Your task to perform on an android device: change the clock style Image 0: 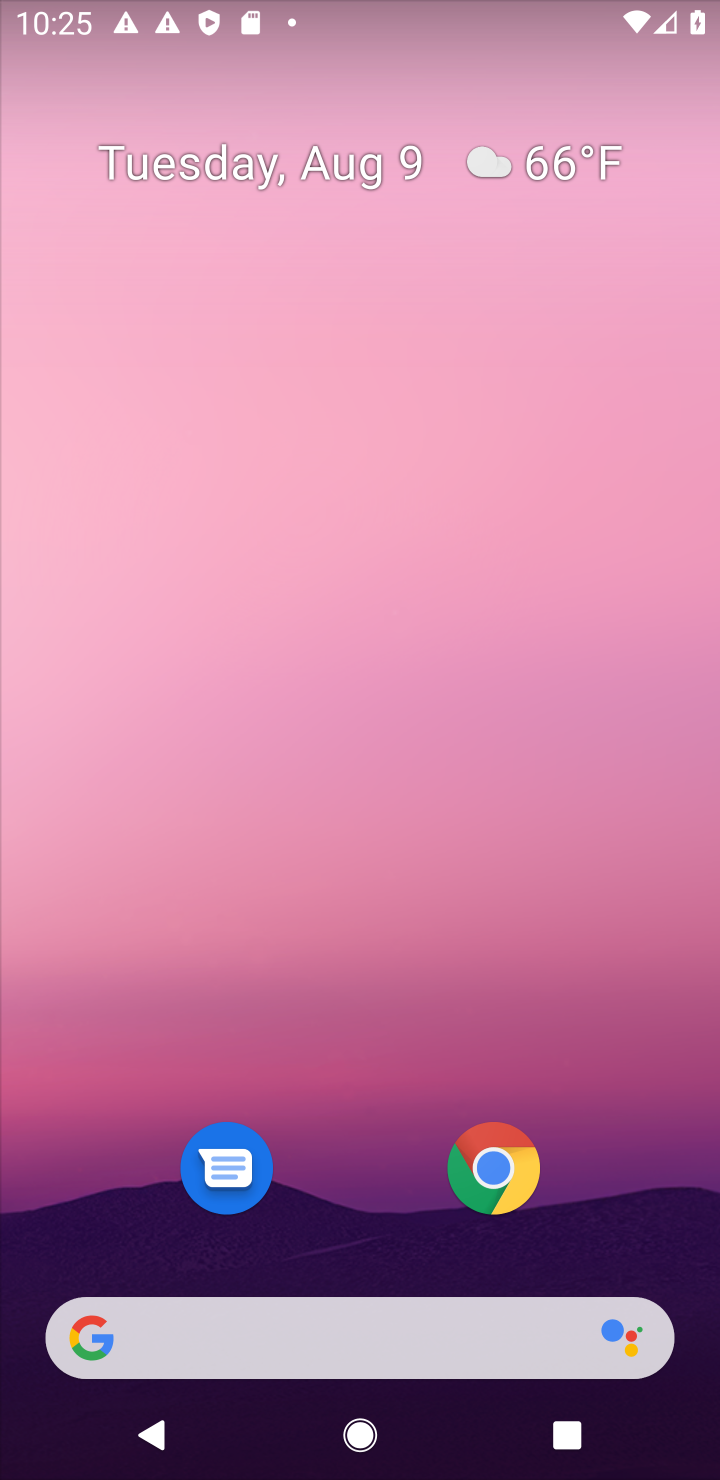
Step 0: drag from (388, 1083) to (394, 61)
Your task to perform on an android device: change the clock style Image 1: 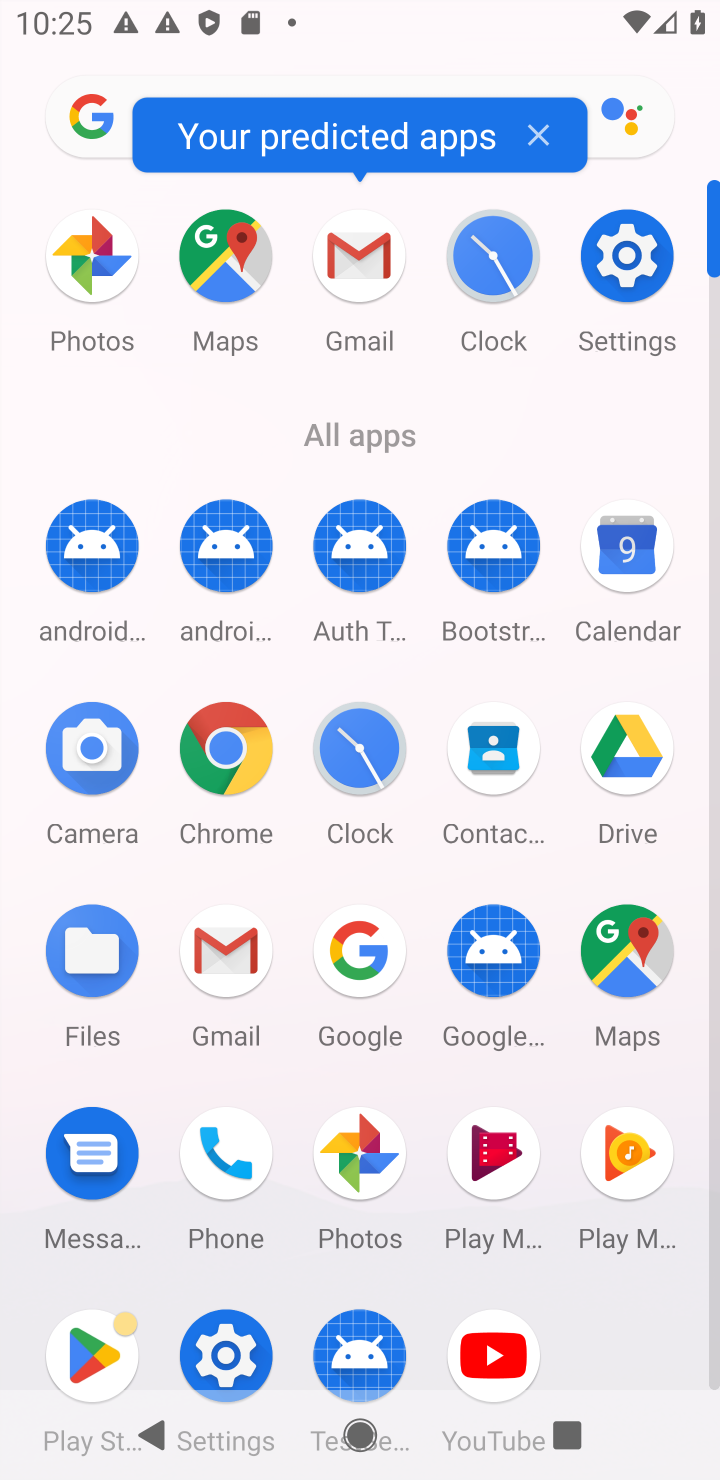
Step 1: click (377, 756)
Your task to perform on an android device: change the clock style Image 2: 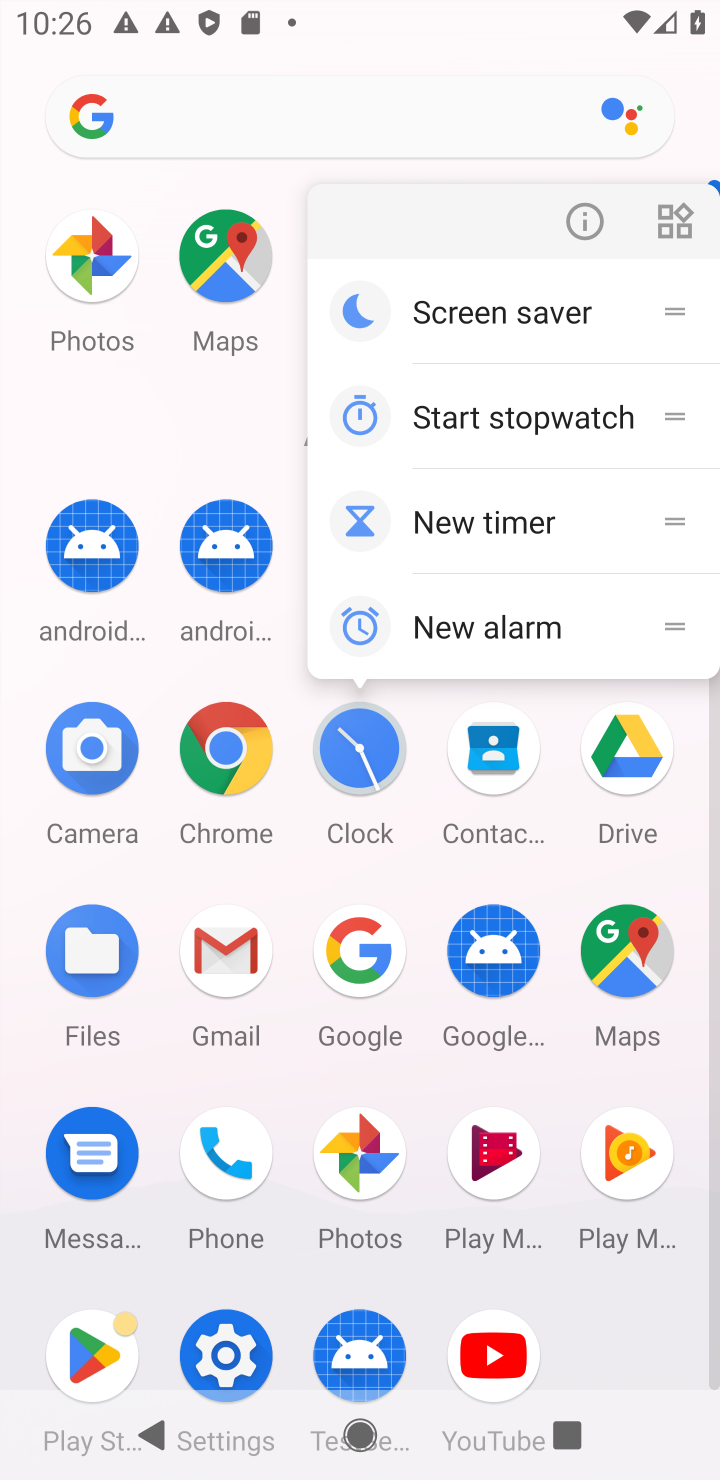
Step 2: click (360, 747)
Your task to perform on an android device: change the clock style Image 3: 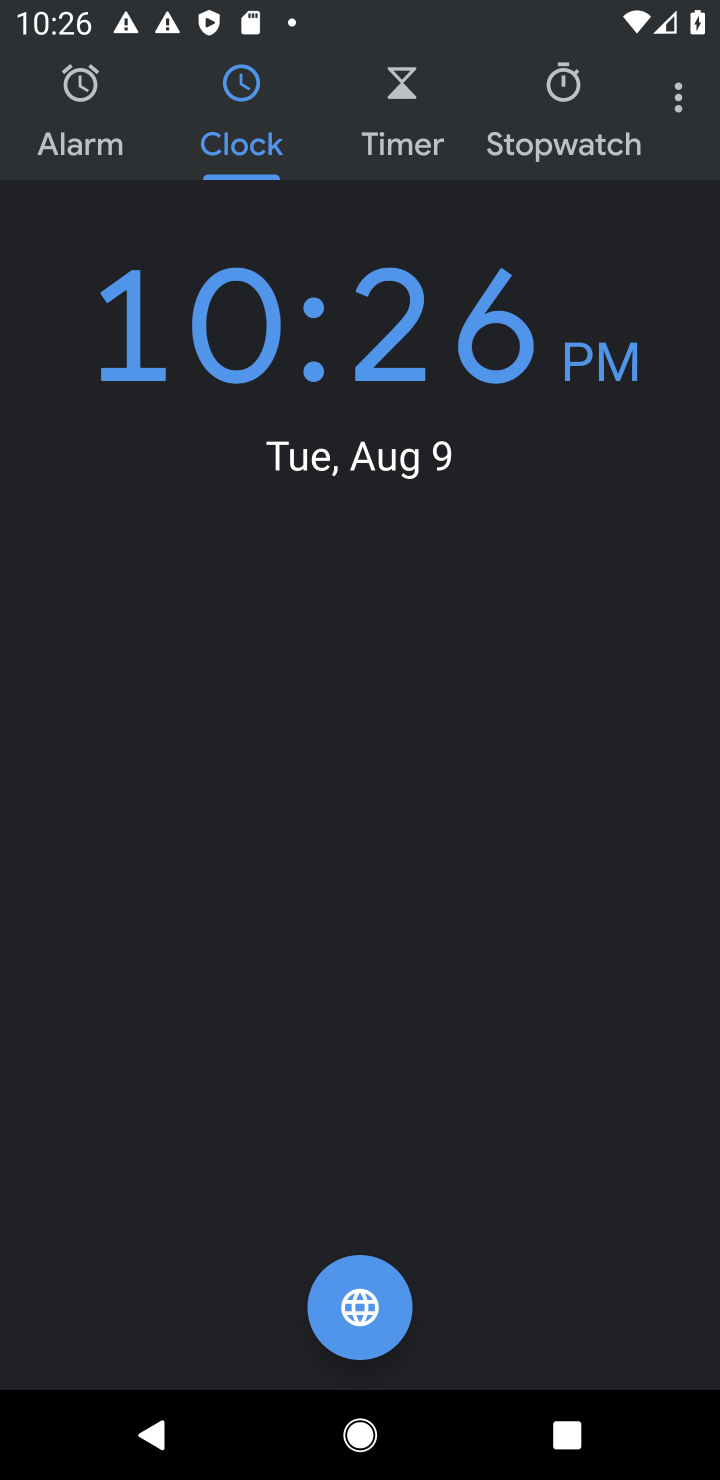
Step 3: click (669, 93)
Your task to perform on an android device: change the clock style Image 4: 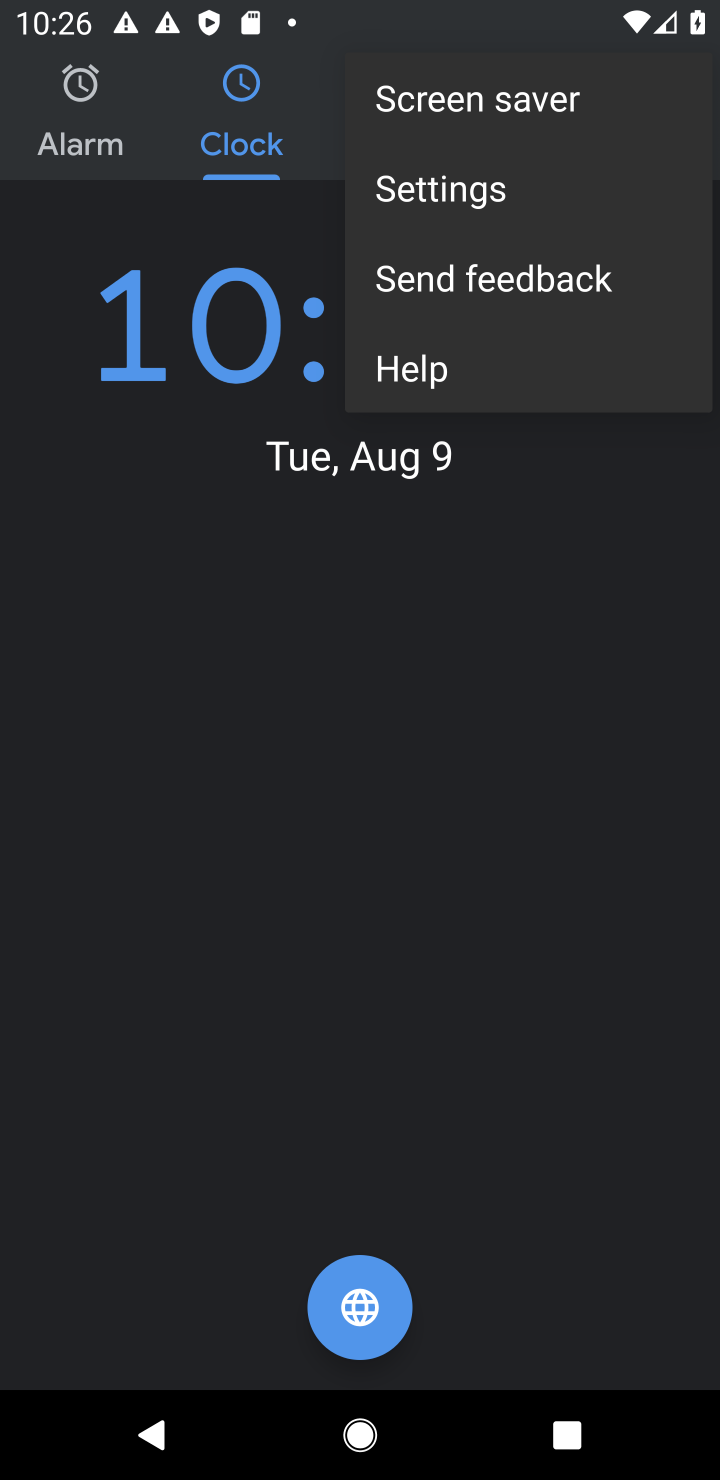
Step 4: click (474, 206)
Your task to perform on an android device: change the clock style Image 5: 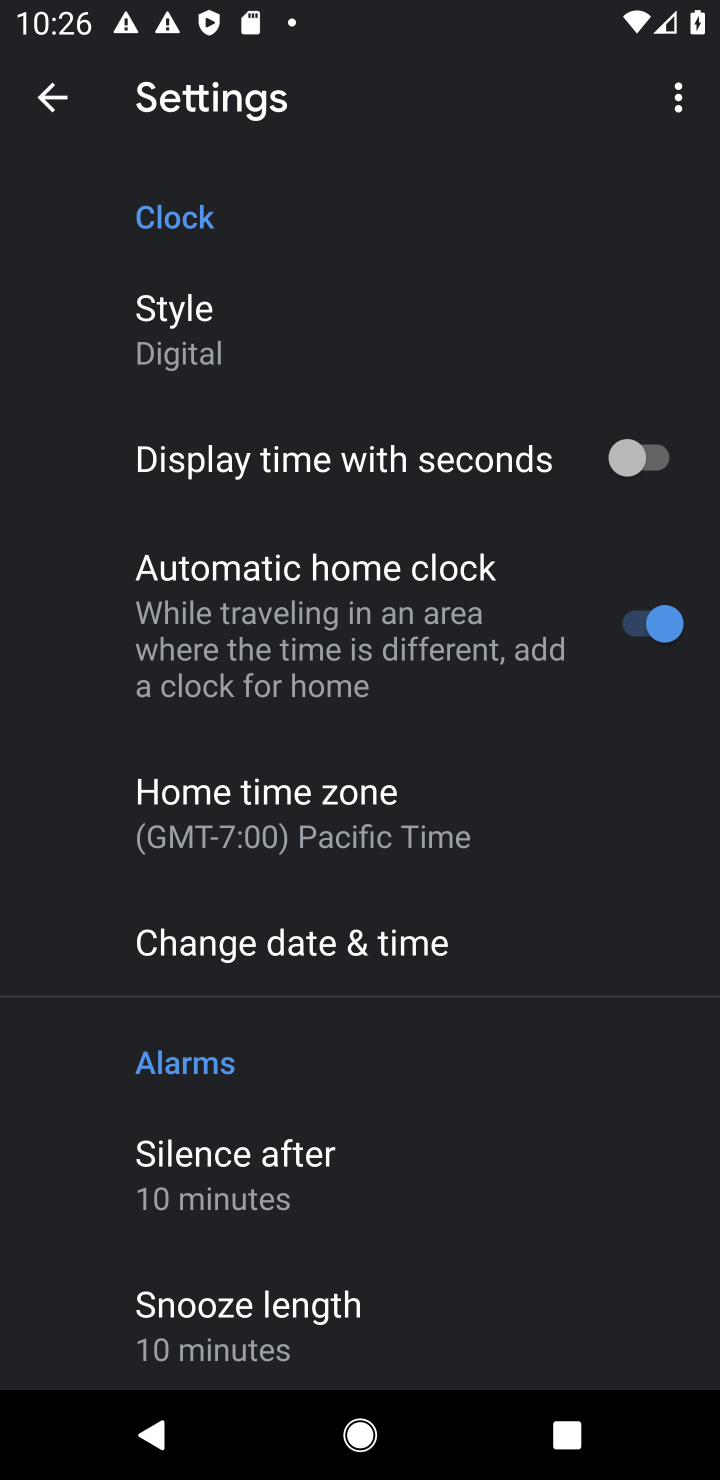
Step 5: click (328, 345)
Your task to perform on an android device: change the clock style Image 6: 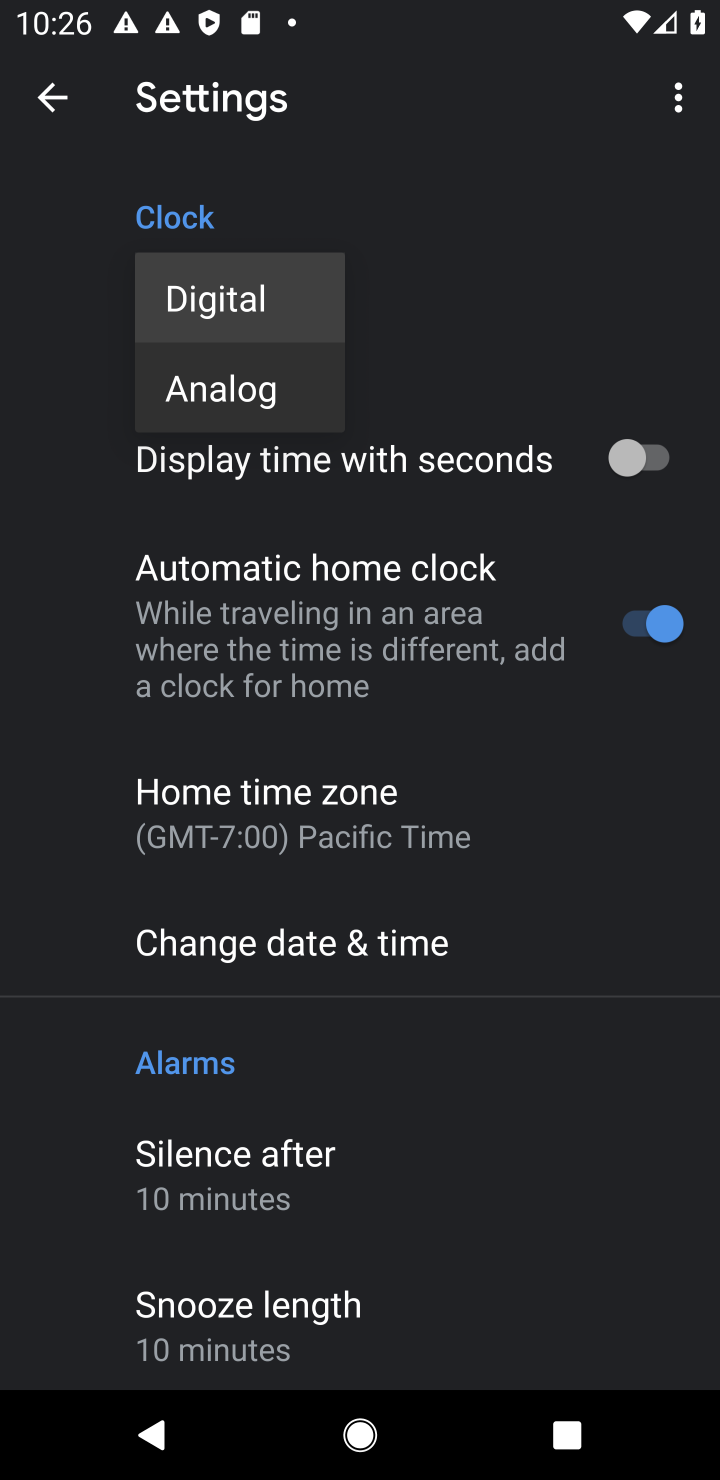
Step 6: click (222, 392)
Your task to perform on an android device: change the clock style Image 7: 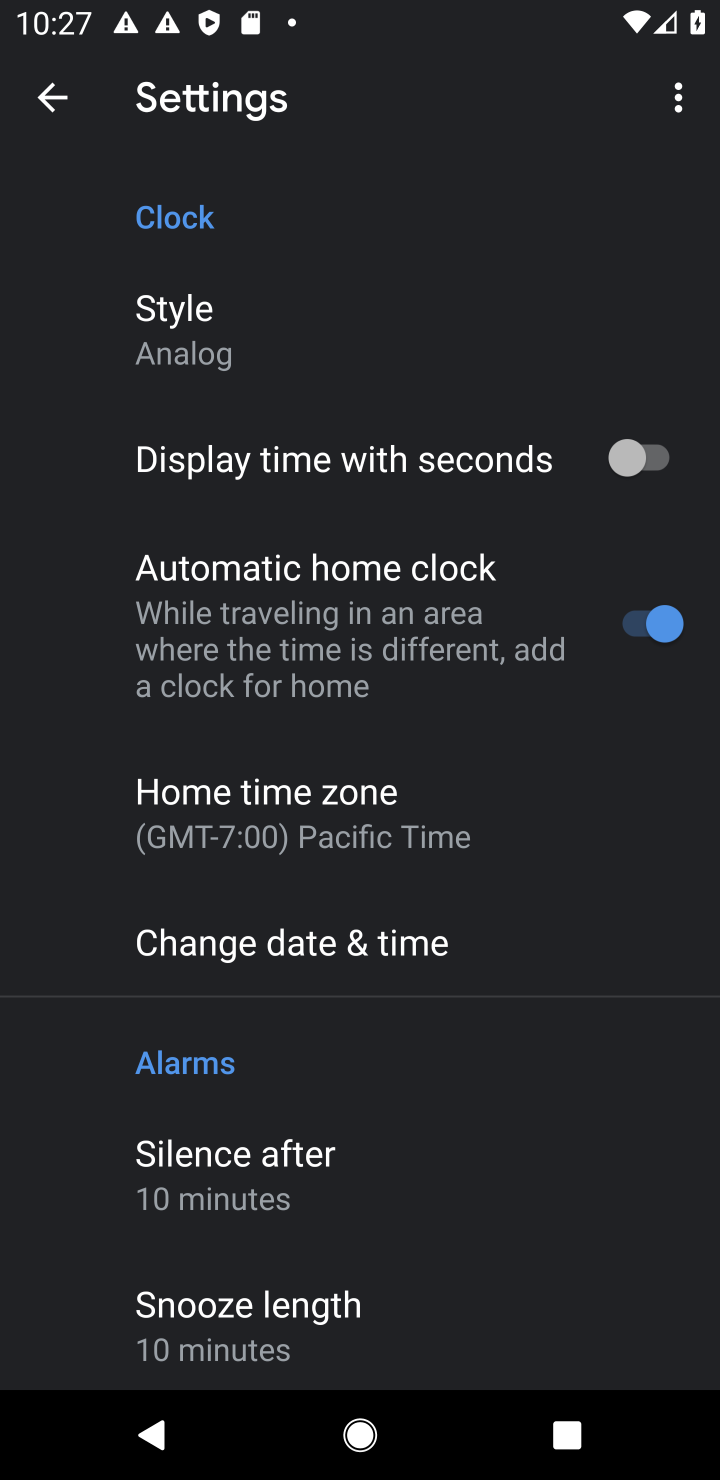
Step 7: task complete